Your task to perform on an android device: turn on airplane mode Image 0: 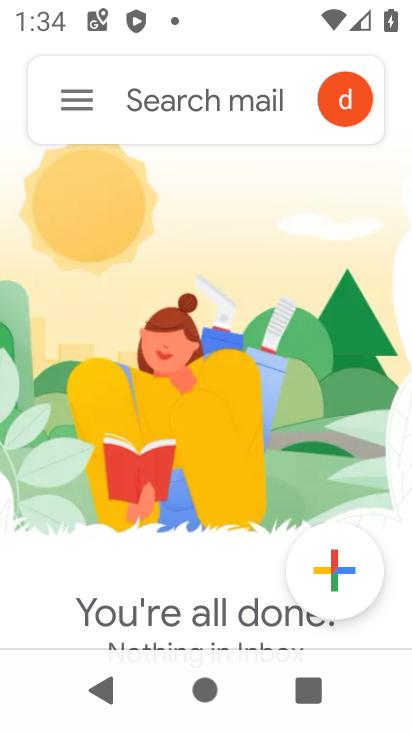
Step 0: press home button
Your task to perform on an android device: turn on airplane mode Image 1: 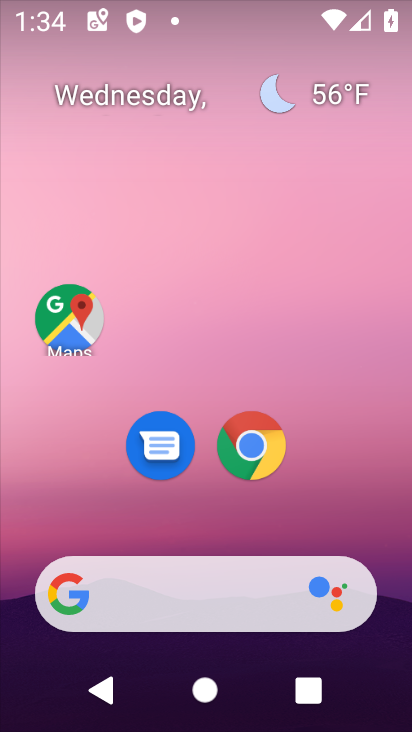
Step 1: drag from (209, 558) to (153, 2)
Your task to perform on an android device: turn on airplane mode Image 2: 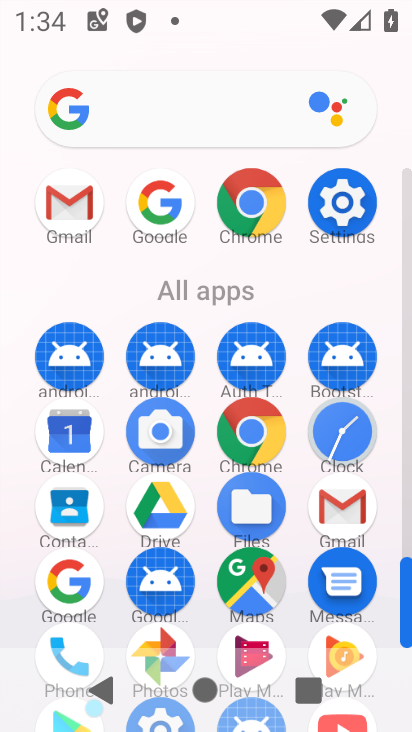
Step 2: click (344, 202)
Your task to perform on an android device: turn on airplane mode Image 3: 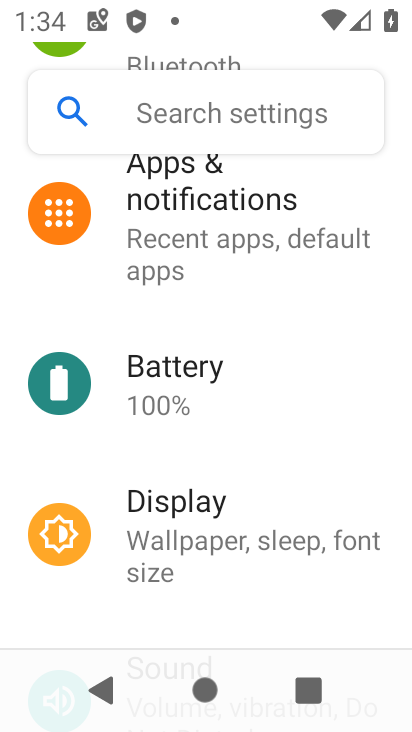
Step 3: click (293, 523)
Your task to perform on an android device: turn on airplane mode Image 4: 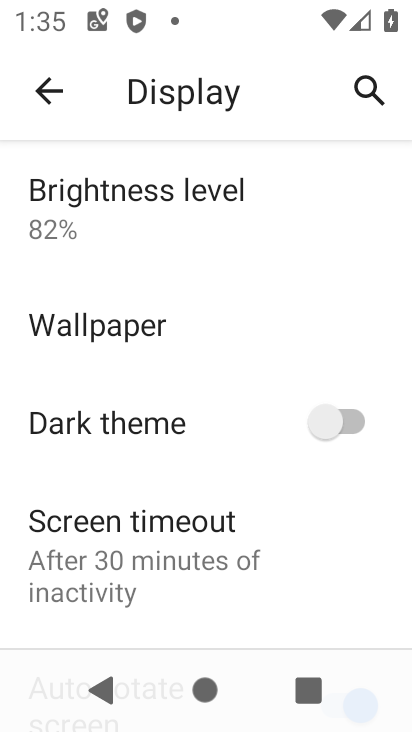
Step 4: drag from (182, 243) to (195, 607)
Your task to perform on an android device: turn on airplane mode Image 5: 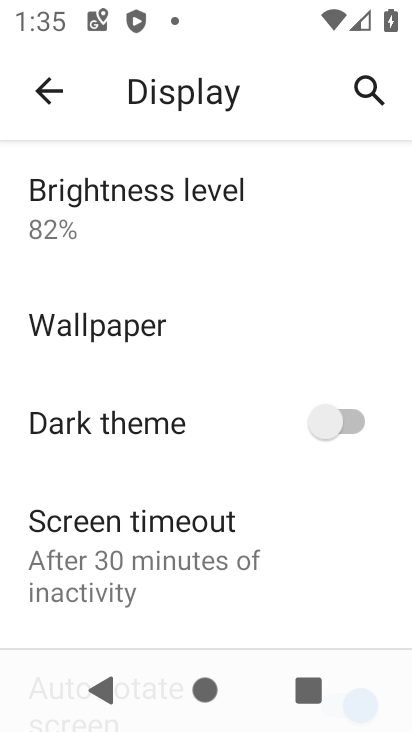
Step 5: click (55, 94)
Your task to perform on an android device: turn on airplane mode Image 6: 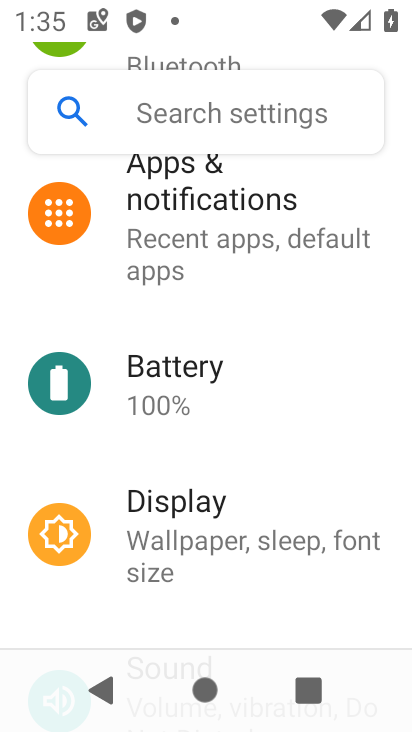
Step 6: drag from (191, 208) to (183, 731)
Your task to perform on an android device: turn on airplane mode Image 7: 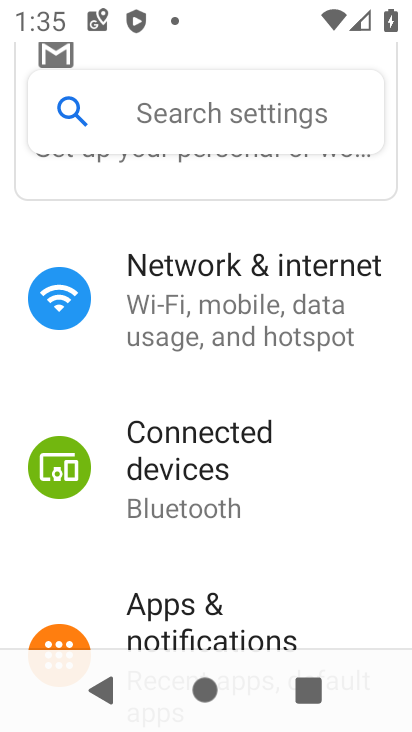
Step 7: click (222, 263)
Your task to perform on an android device: turn on airplane mode Image 8: 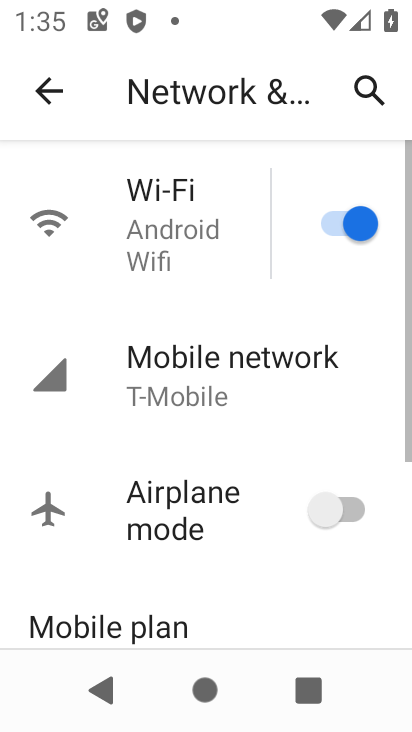
Step 8: click (245, 369)
Your task to perform on an android device: turn on airplane mode Image 9: 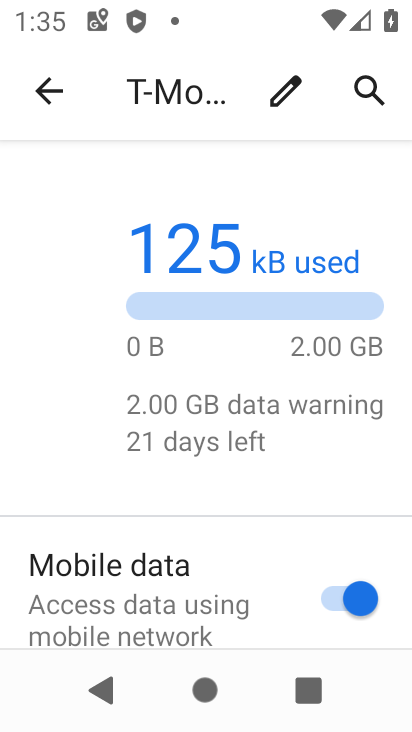
Step 9: drag from (316, 605) to (228, 182)
Your task to perform on an android device: turn on airplane mode Image 10: 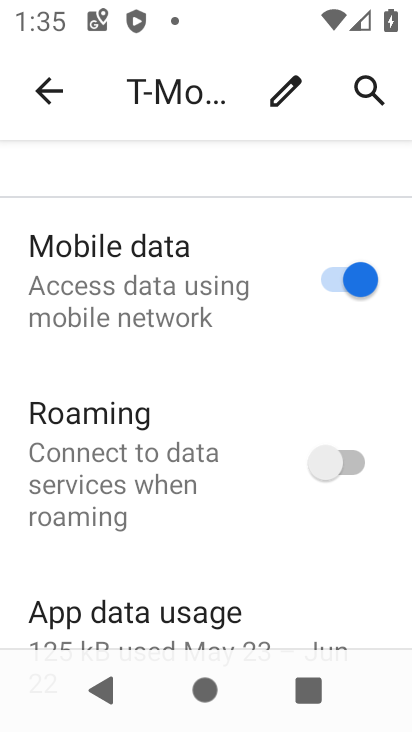
Step 10: click (60, 85)
Your task to perform on an android device: turn on airplane mode Image 11: 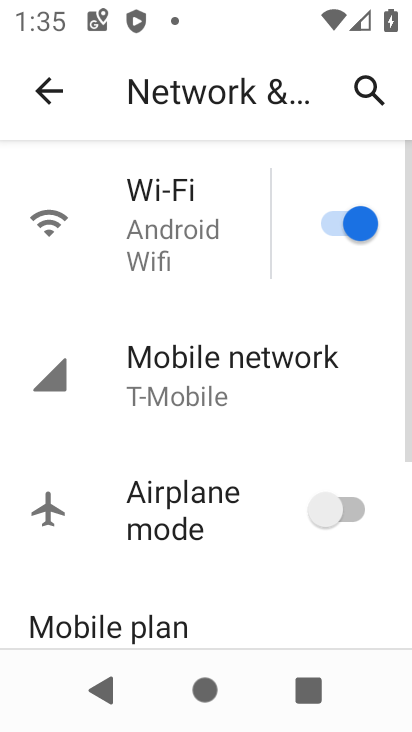
Step 11: click (323, 491)
Your task to perform on an android device: turn on airplane mode Image 12: 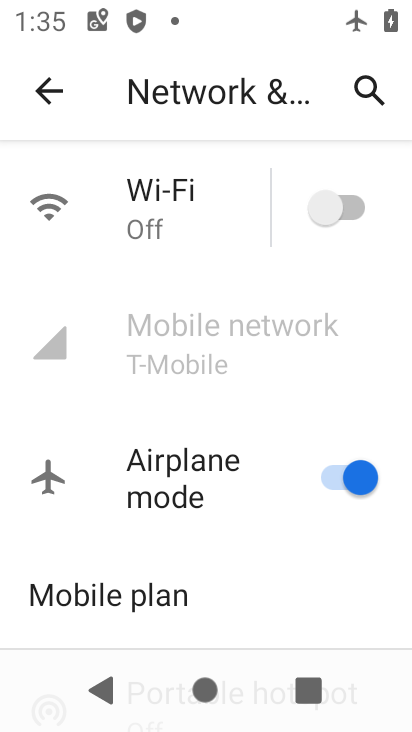
Step 12: task complete